Your task to perform on an android device: View the shopping cart on newegg.com. Add logitech g903 to the cart on newegg.com Image 0: 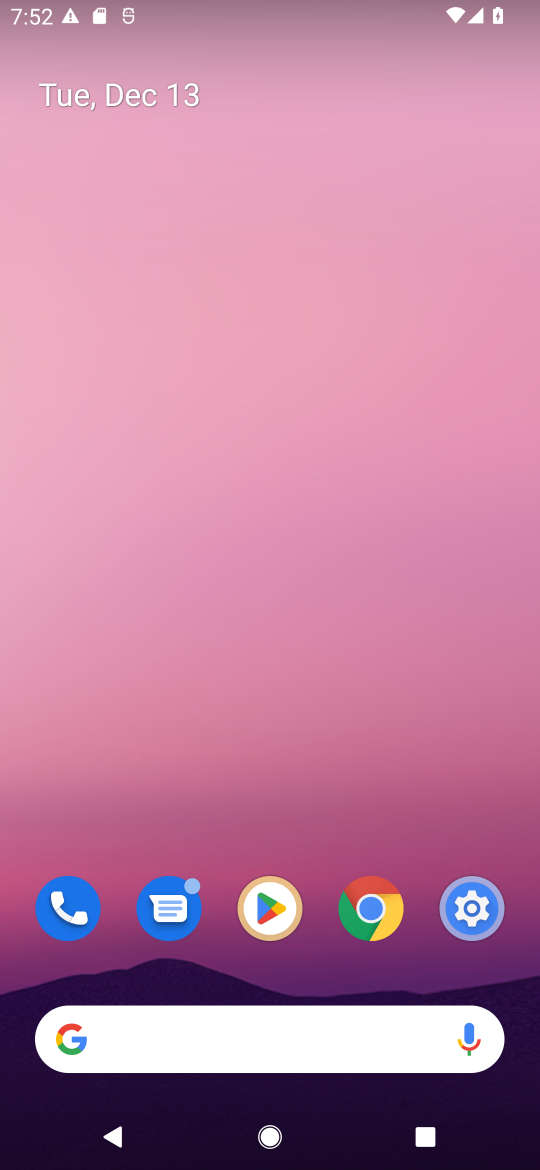
Step 0: press home button
Your task to perform on an android device: View the shopping cart on newegg.com. Add logitech g903 to the cart on newegg.com Image 1: 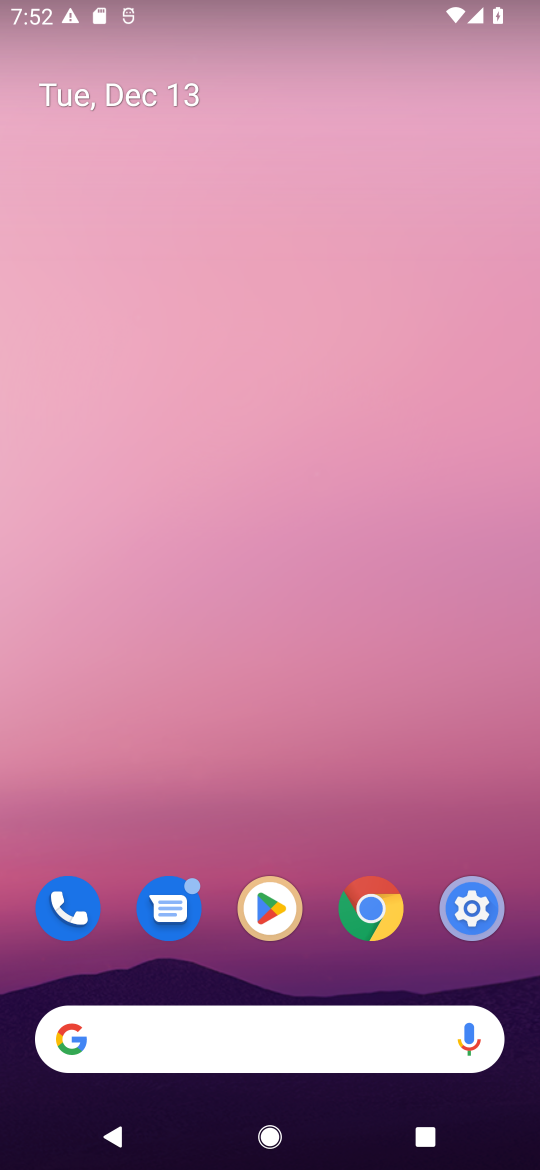
Step 1: click (112, 1033)
Your task to perform on an android device: View the shopping cart on newegg.com. Add logitech g903 to the cart on newegg.com Image 2: 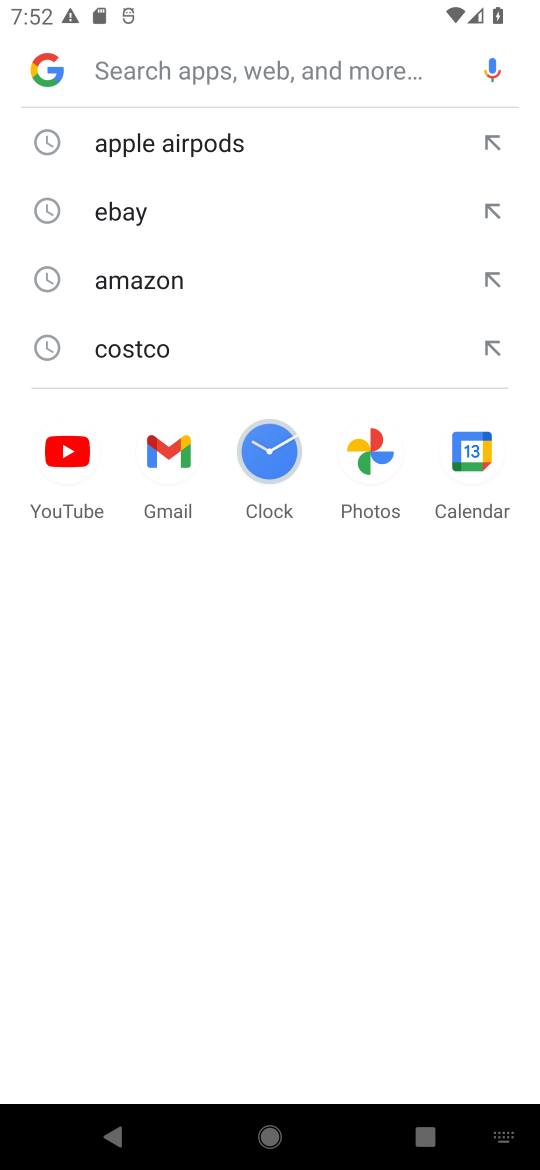
Step 2: type "newegg.com"
Your task to perform on an android device: View the shopping cart on newegg.com. Add logitech g903 to the cart on newegg.com Image 3: 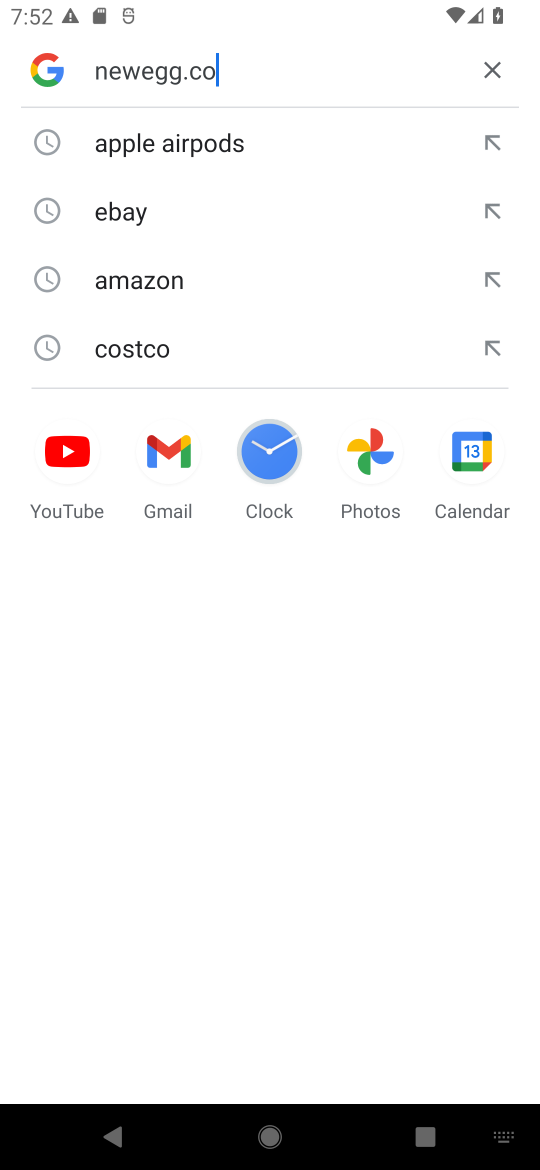
Step 3: press enter
Your task to perform on an android device: View the shopping cart on newegg.com. Add logitech g903 to the cart on newegg.com Image 4: 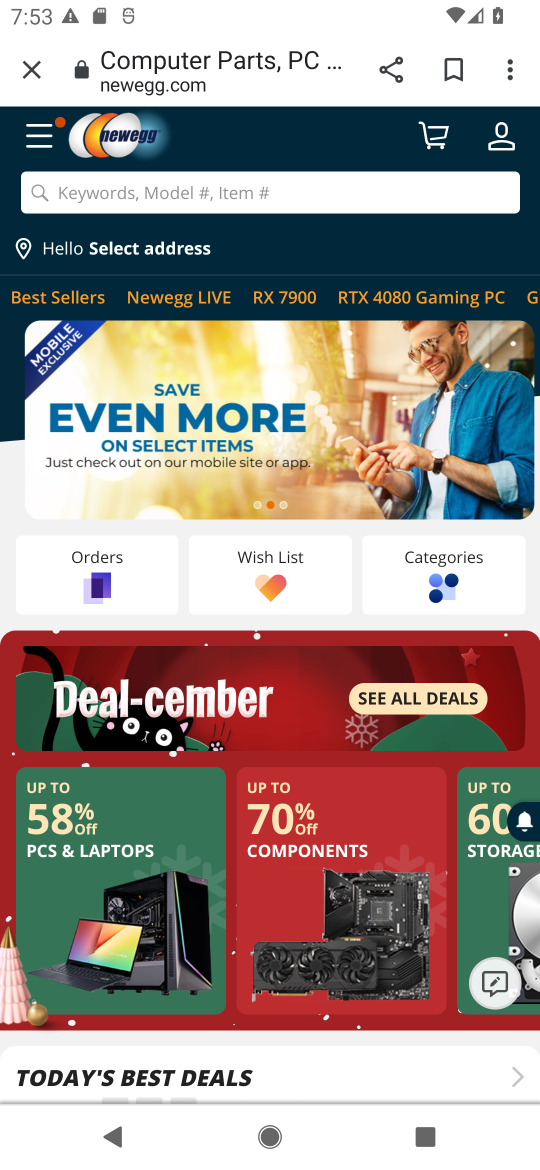
Step 4: click (74, 194)
Your task to perform on an android device: View the shopping cart on newegg.com. Add logitech g903 to the cart on newegg.com Image 5: 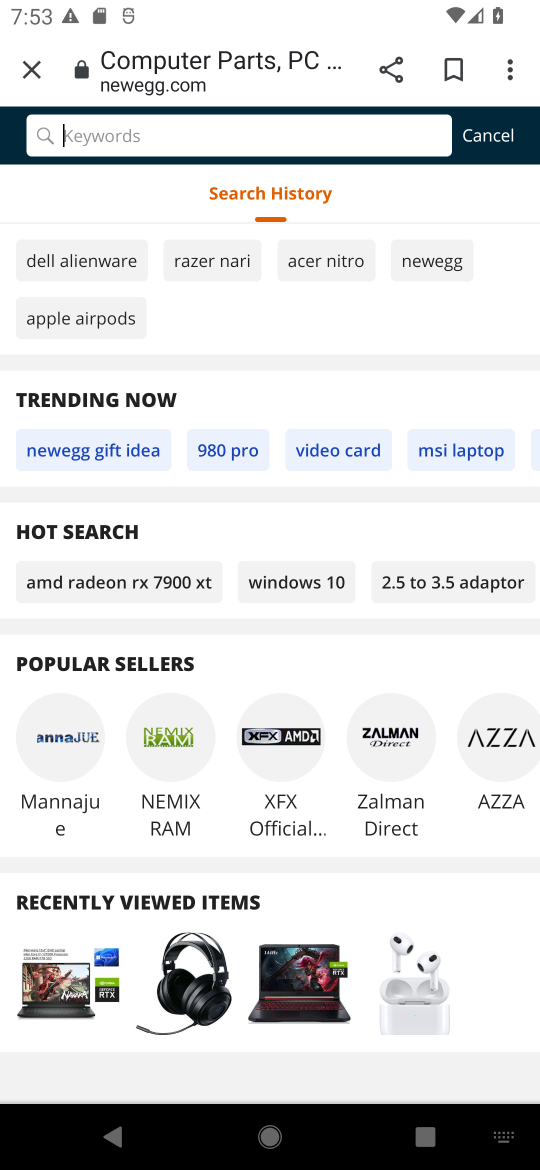
Step 5: type "logitech g903"
Your task to perform on an android device: View the shopping cart on newegg.com. Add logitech g903 to the cart on newegg.com Image 6: 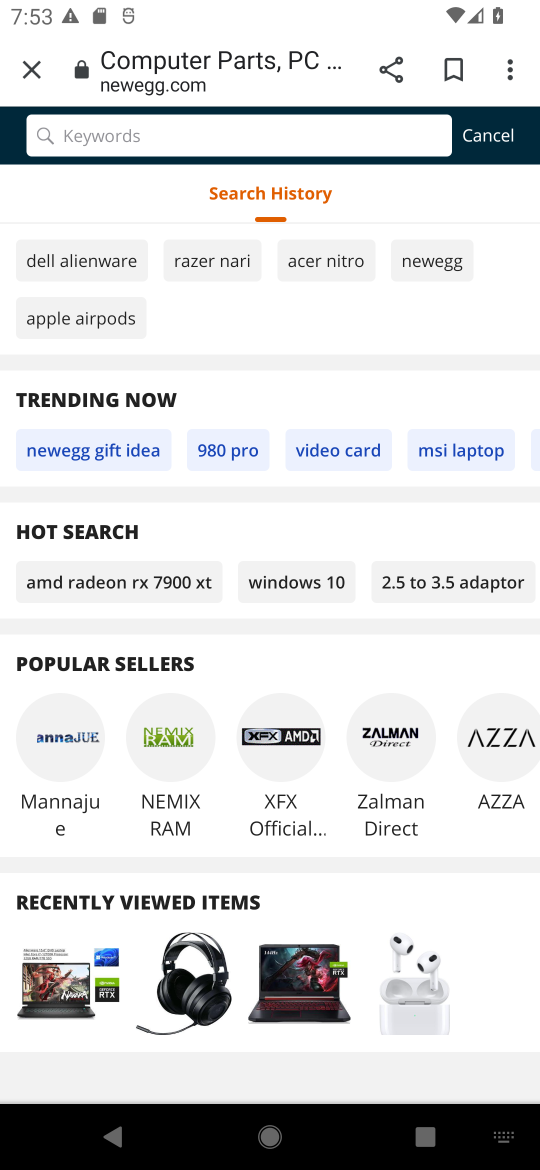
Step 6: press enter
Your task to perform on an android device: View the shopping cart on newegg.com. Add logitech g903 to the cart on newegg.com Image 7: 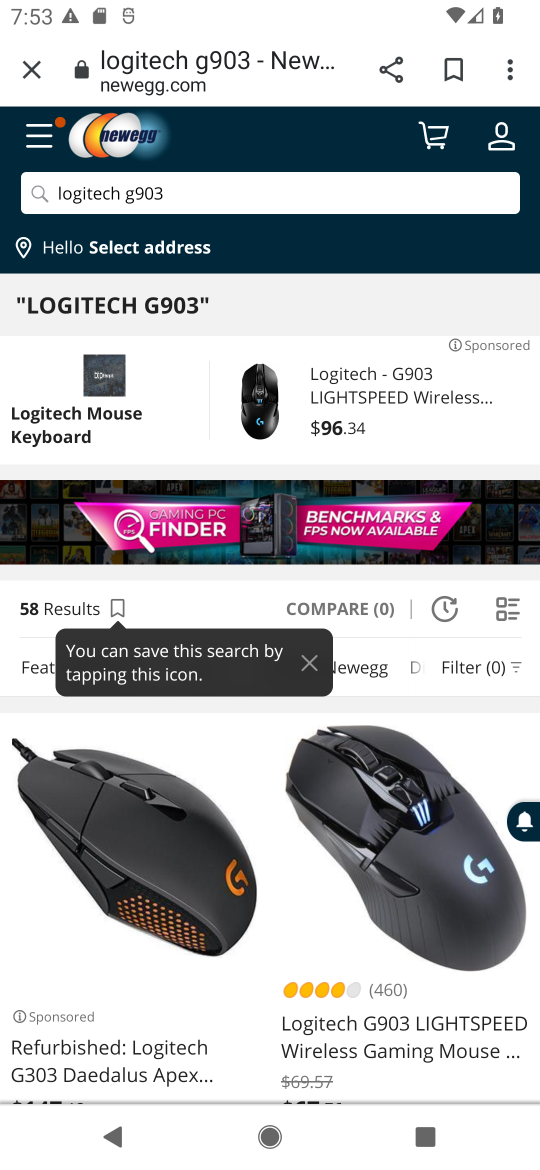
Step 7: drag from (365, 1007) to (406, 455)
Your task to perform on an android device: View the shopping cart on newegg.com. Add logitech g903 to the cart on newegg.com Image 8: 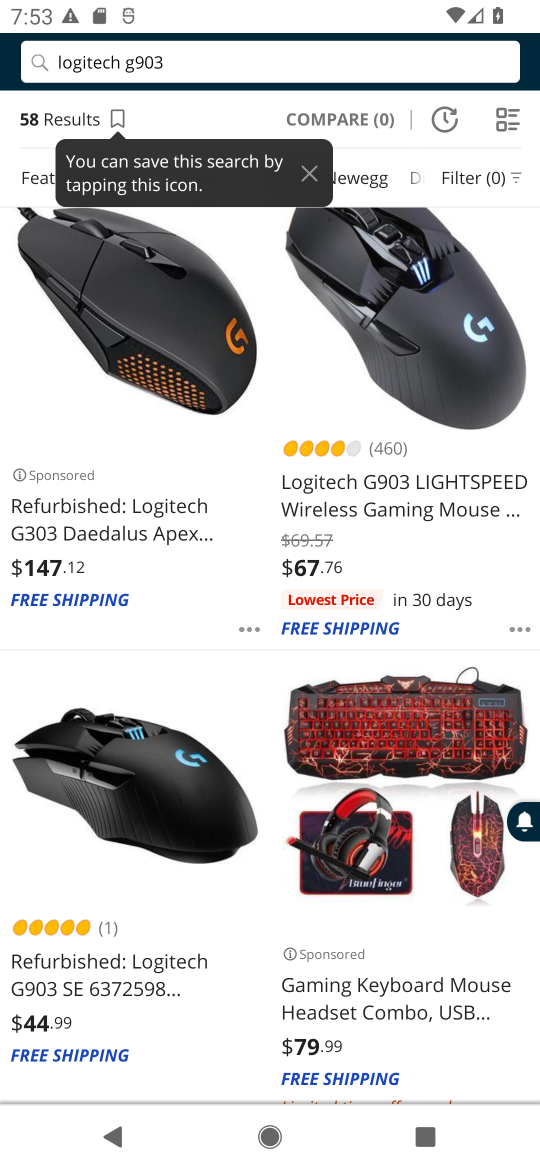
Step 8: click (405, 494)
Your task to perform on an android device: View the shopping cart on newegg.com. Add logitech g903 to the cart on newegg.com Image 9: 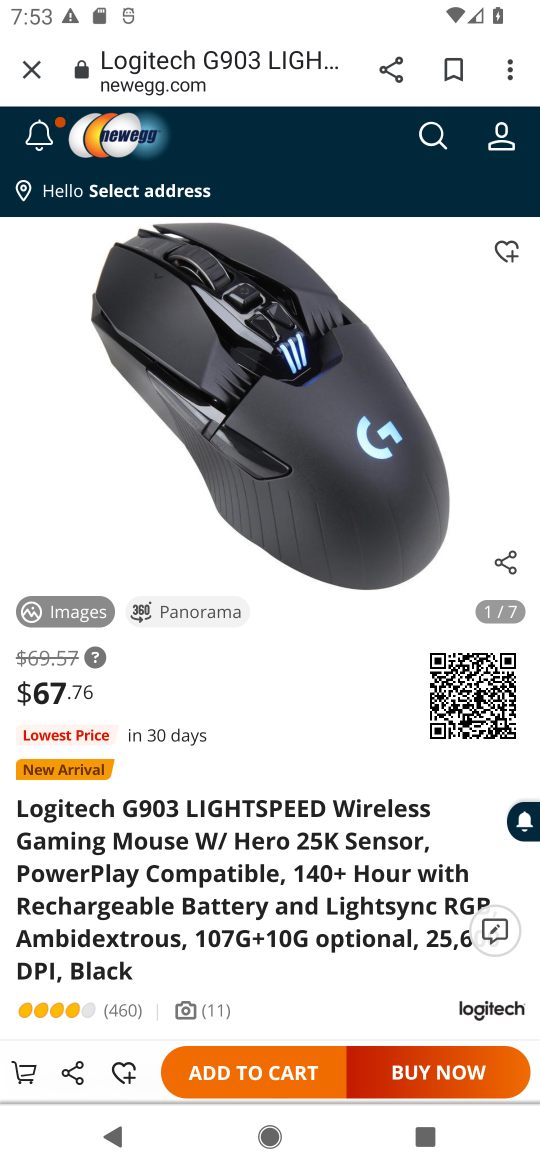
Step 9: click (205, 1074)
Your task to perform on an android device: View the shopping cart on newegg.com. Add logitech g903 to the cart on newegg.com Image 10: 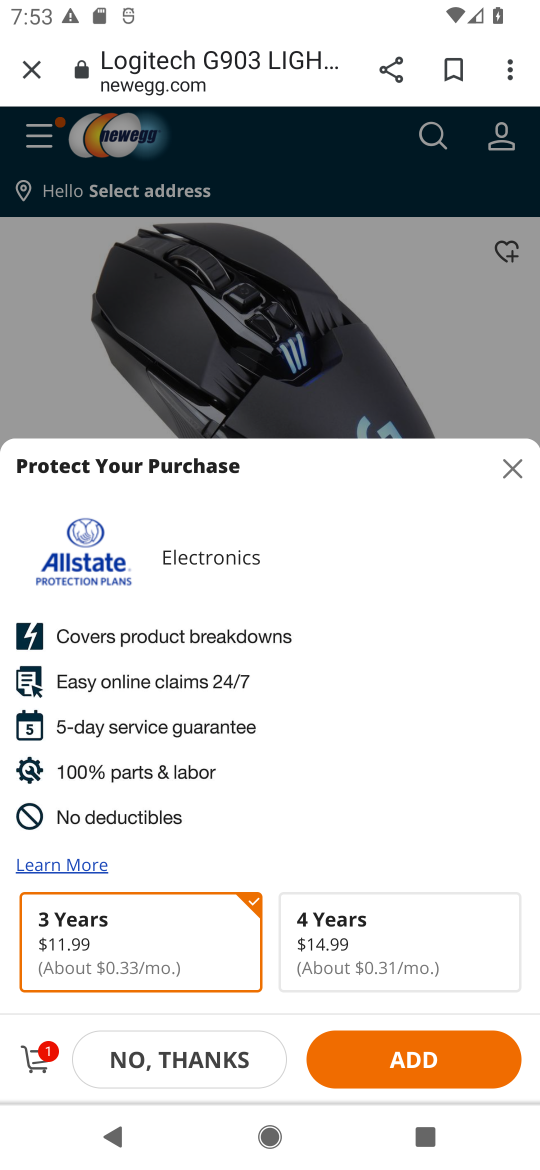
Step 10: click (516, 468)
Your task to perform on an android device: View the shopping cart on newegg.com. Add logitech g903 to the cart on newegg.com Image 11: 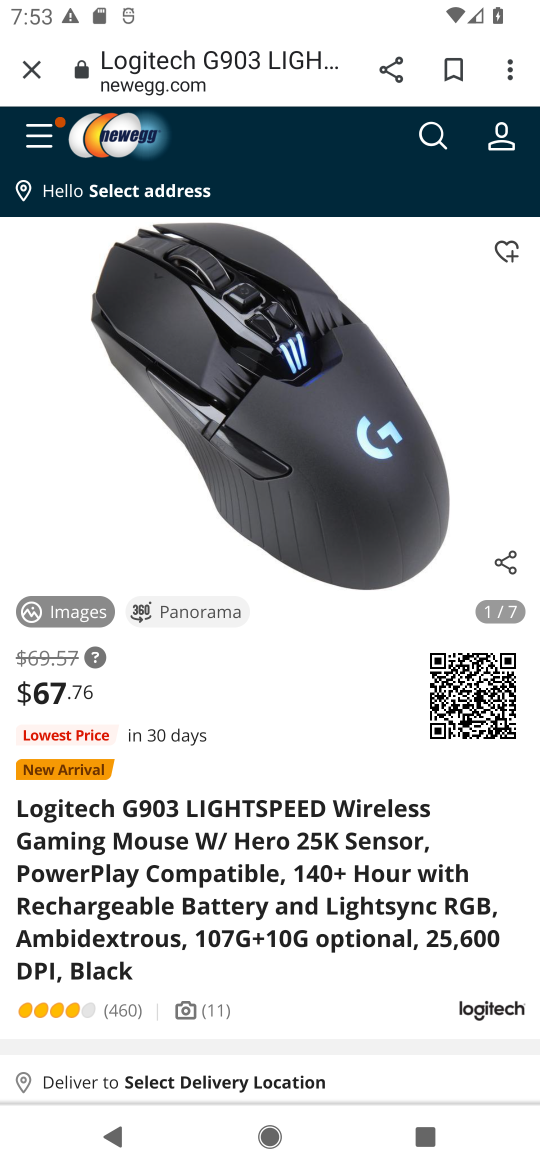
Step 11: task complete